Your task to perform on an android device: Open ESPN.com Image 0: 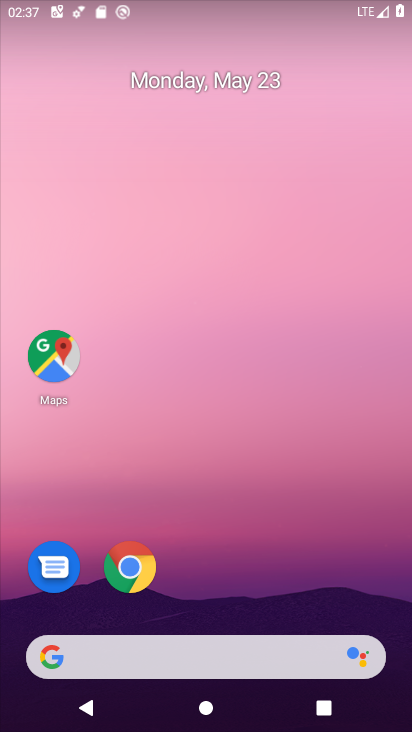
Step 0: drag from (212, 612) to (242, 280)
Your task to perform on an android device: Open ESPN.com Image 1: 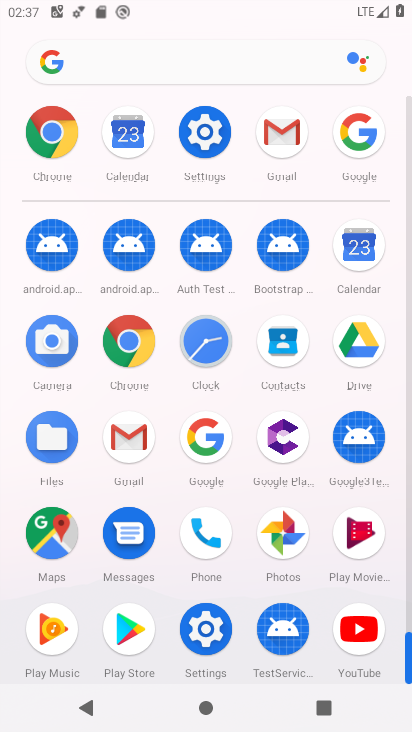
Step 1: click (132, 364)
Your task to perform on an android device: Open ESPN.com Image 2: 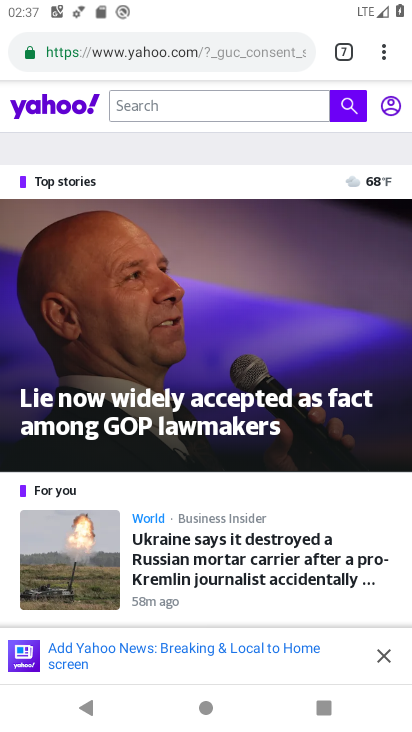
Step 2: click (355, 58)
Your task to perform on an android device: Open ESPN.com Image 3: 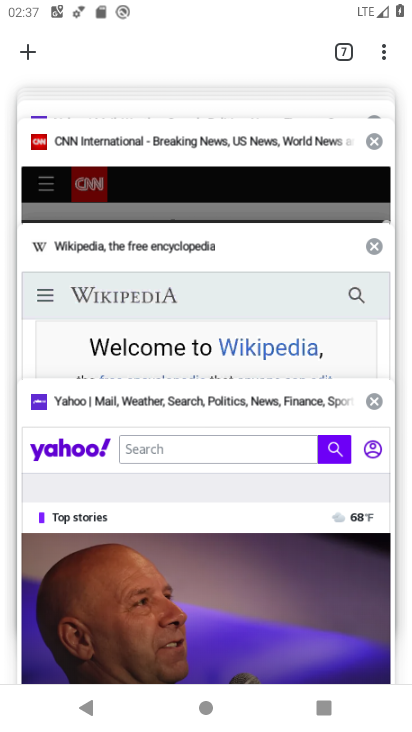
Step 3: click (43, 55)
Your task to perform on an android device: Open ESPN.com Image 4: 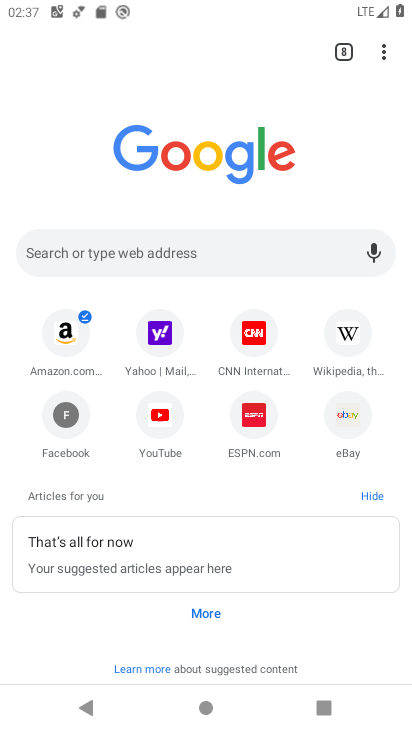
Step 4: click (258, 430)
Your task to perform on an android device: Open ESPN.com Image 5: 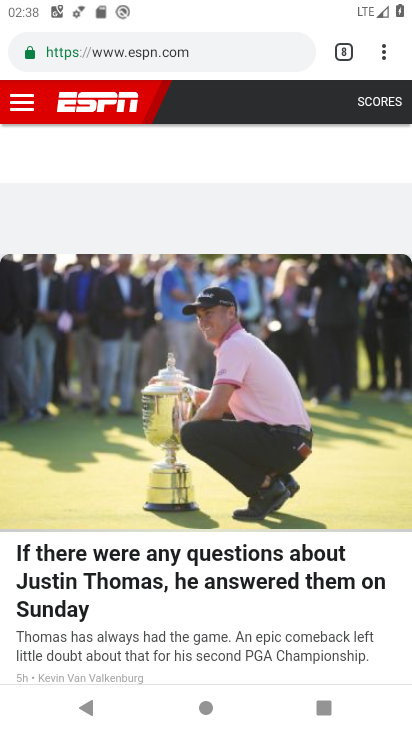
Step 5: task complete